Your task to perform on an android device: turn vacation reply on in the gmail app Image 0: 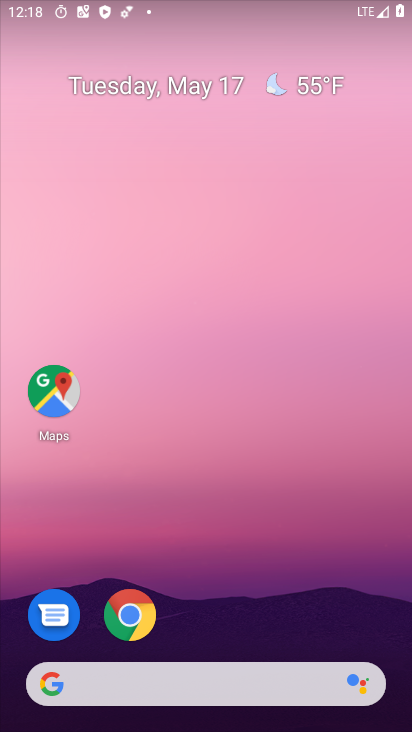
Step 0: drag from (310, 497) to (309, 188)
Your task to perform on an android device: turn vacation reply on in the gmail app Image 1: 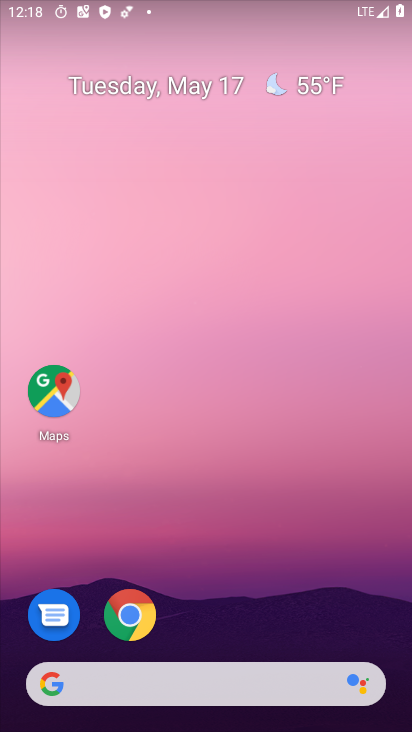
Step 1: drag from (329, 625) to (201, 7)
Your task to perform on an android device: turn vacation reply on in the gmail app Image 2: 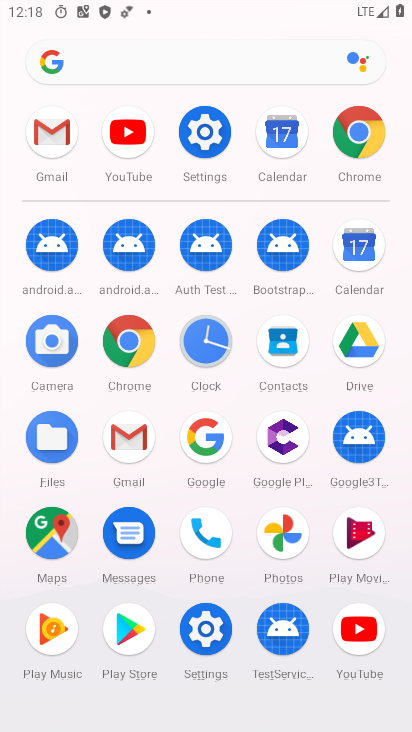
Step 2: click (58, 149)
Your task to perform on an android device: turn vacation reply on in the gmail app Image 3: 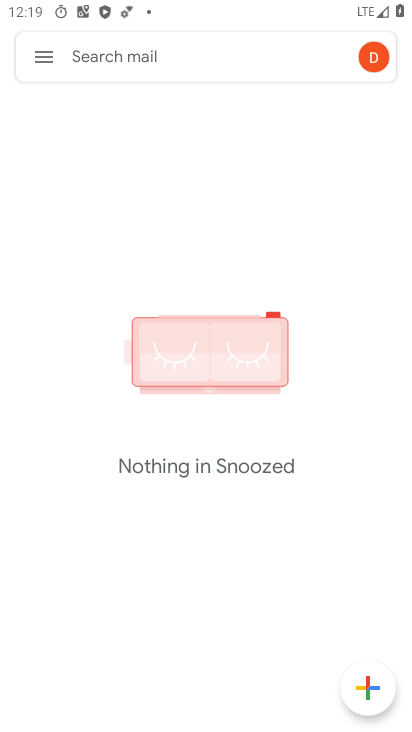
Step 3: click (49, 63)
Your task to perform on an android device: turn vacation reply on in the gmail app Image 4: 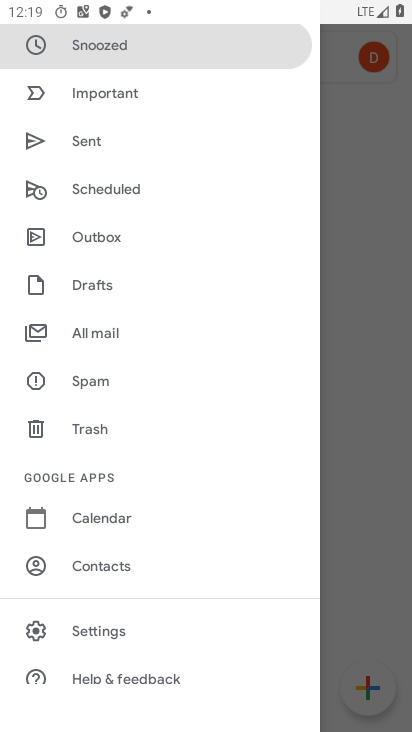
Step 4: click (122, 632)
Your task to perform on an android device: turn vacation reply on in the gmail app Image 5: 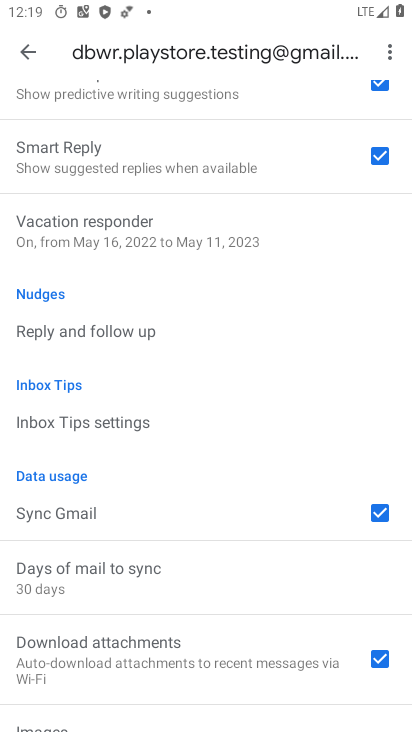
Step 5: drag from (121, 618) to (172, 271)
Your task to perform on an android device: turn vacation reply on in the gmail app Image 6: 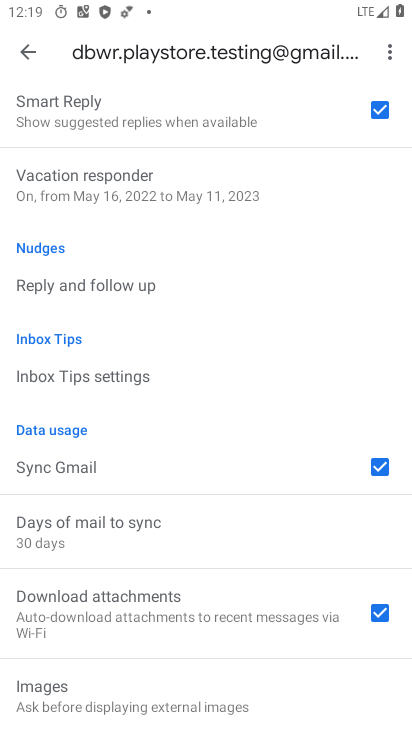
Step 6: drag from (135, 602) to (212, 436)
Your task to perform on an android device: turn vacation reply on in the gmail app Image 7: 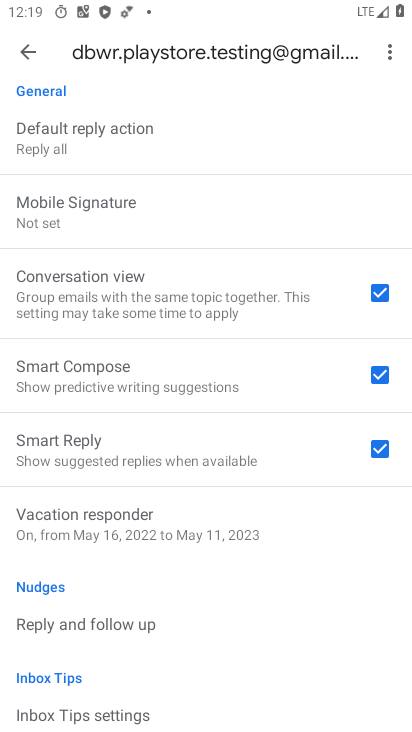
Step 7: click (180, 491)
Your task to perform on an android device: turn vacation reply on in the gmail app Image 8: 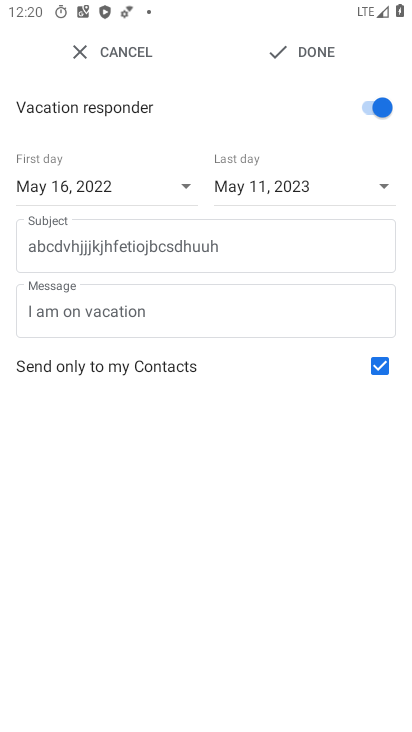
Step 8: click (187, 188)
Your task to perform on an android device: turn vacation reply on in the gmail app Image 9: 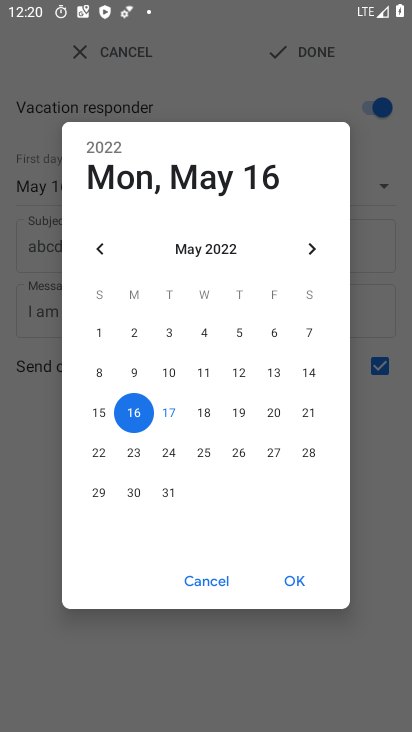
Step 9: click (168, 408)
Your task to perform on an android device: turn vacation reply on in the gmail app Image 10: 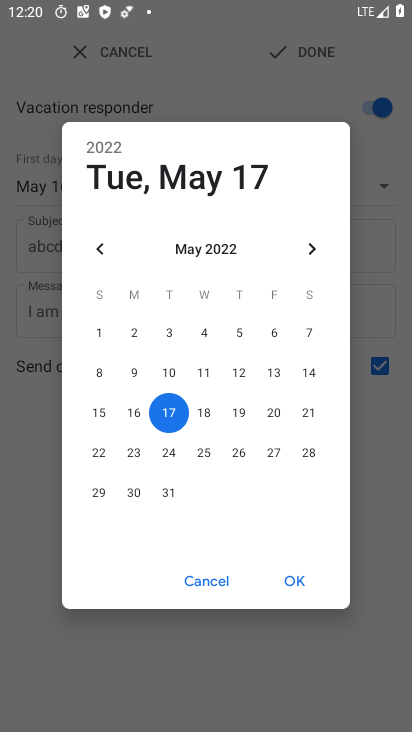
Step 10: click (306, 587)
Your task to perform on an android device: turn vacation reply on in the gmail app Image 11: 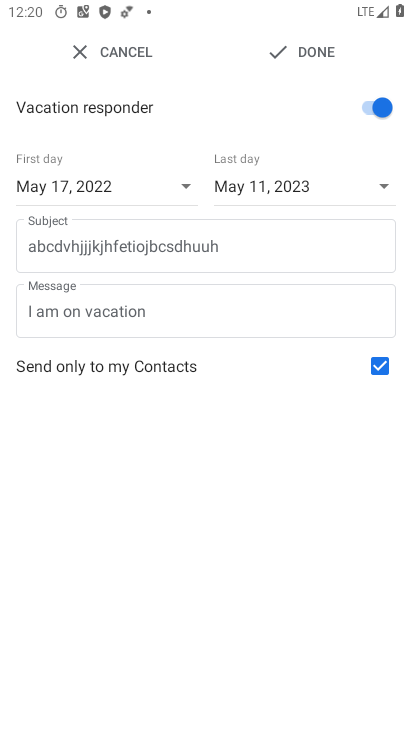
Step 11: click (271, 56)
Your task to perform on an android device: turn vacation reply on in the gmail app Image 12: 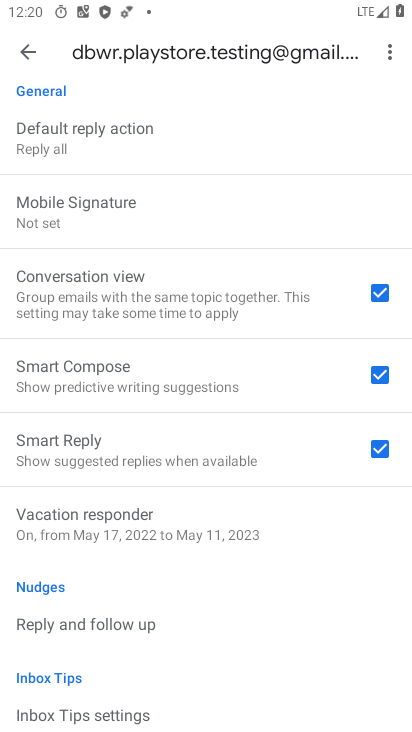
Step 12: task complete